Your task to perform on an android device: See recent photos Image 0: 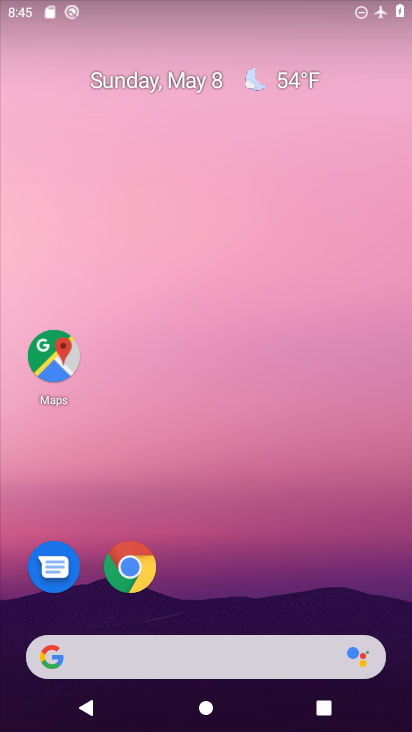
Step 0: drag from (318, 557) to (364, 68)
Your task to perform on an android device: See recent photos Image 1: 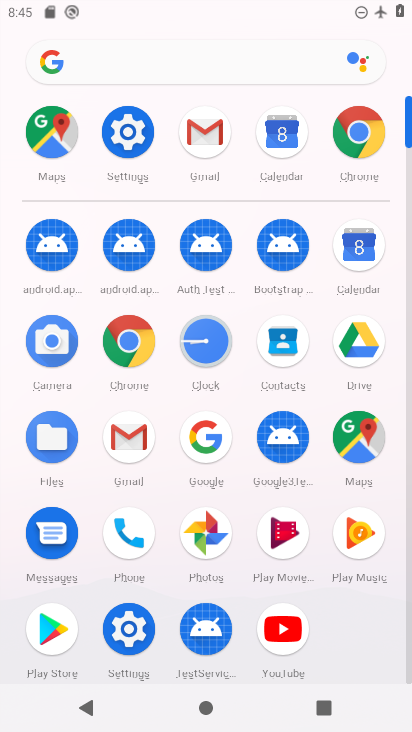
Step 1: click (220, 530)
Your task to perform on an android device: See recent photos Image 2: 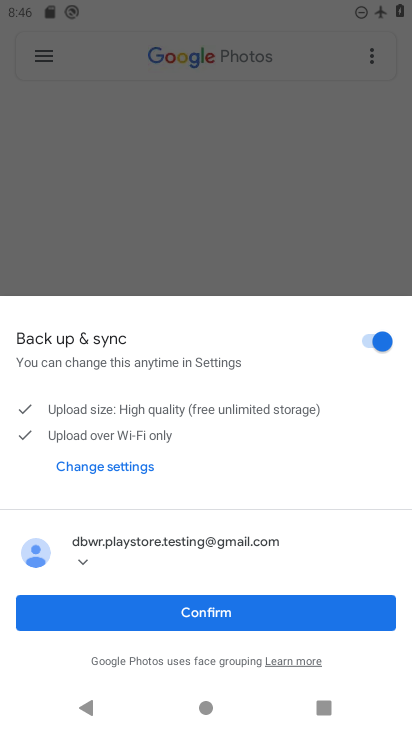
Step 2: click (233, 618)
Your task to perform on an android device: See recent photos Image 3: 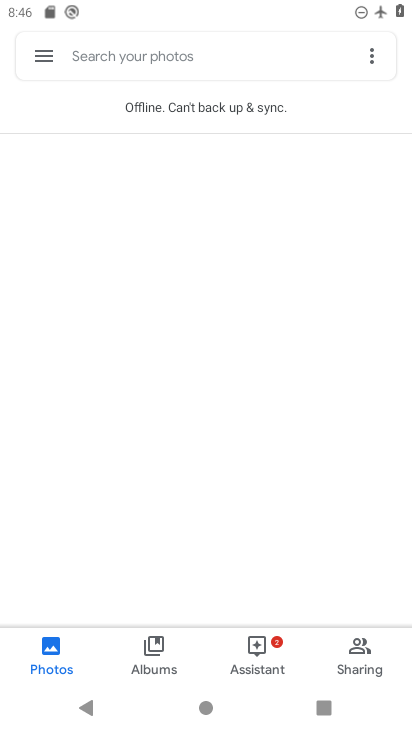
Step 3: task complete